Your task to perform on an android device: open app "Duolingo: language lessons" (install if not already installed) and go to login screen Image 0: 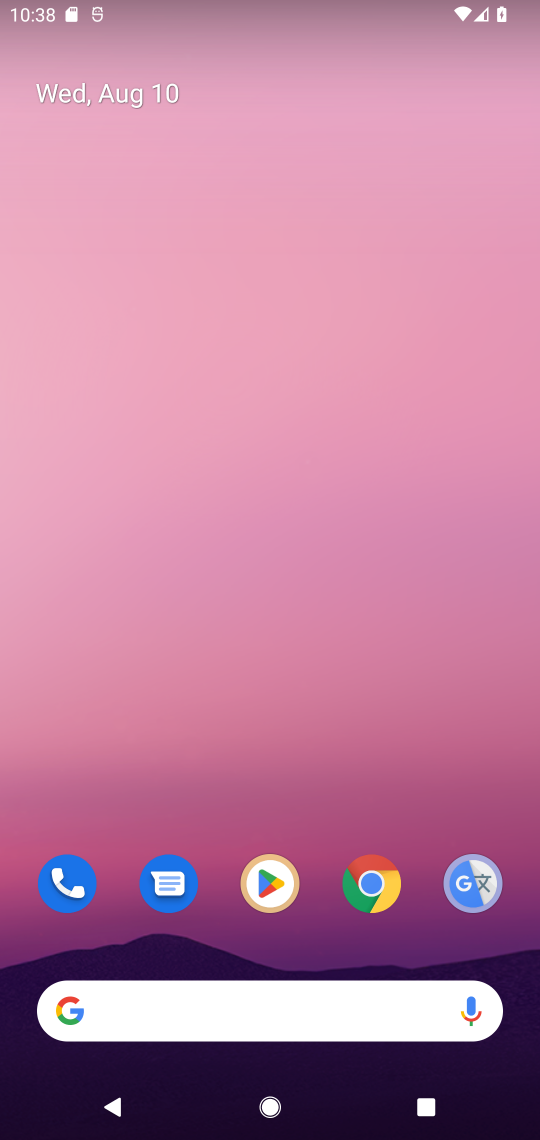
Step 0: drag from (309, 967) to (289, 163)
Your task to perform on an android device: open app "Duolingo: language lessons" (install if not already installed) and go to login screen Image 1: 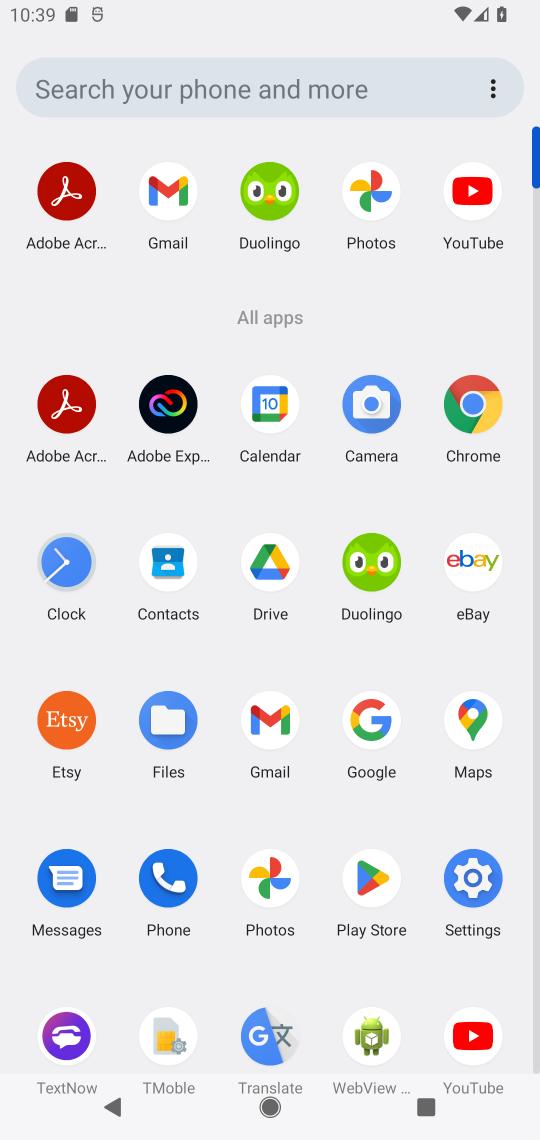
Step 1: click (373, 885)
Your task to perform on an android device: open app "Duolingo: language lessons" (install if not already installed) and go to login screen Image 2: 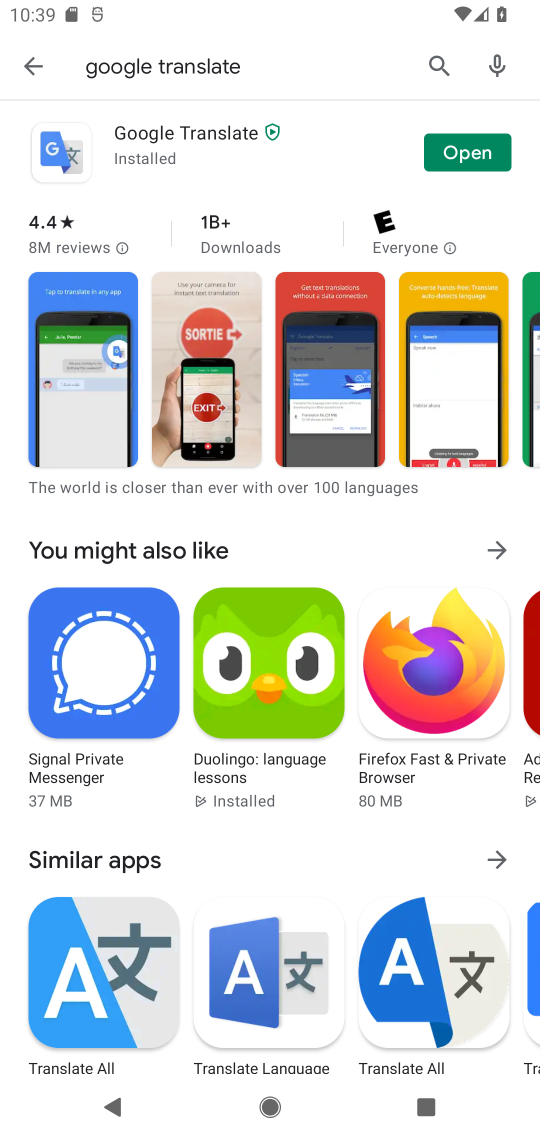
Step 2: click (434, 61)
Your task to perform on an android device: open app "Duolingo: language lessons" (install if not already installed) and go to login screen Image 3: 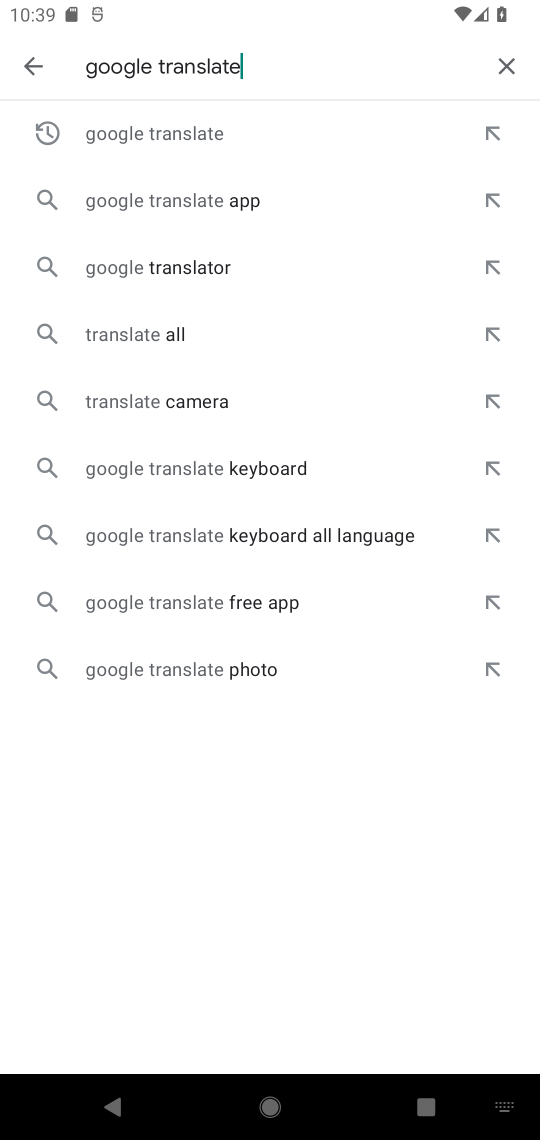
Step 3: click (505, 58)
Your task to perform on an android device: open app "Duolingo: language lessons" (install if not already installed) and go to login screen Image 4: 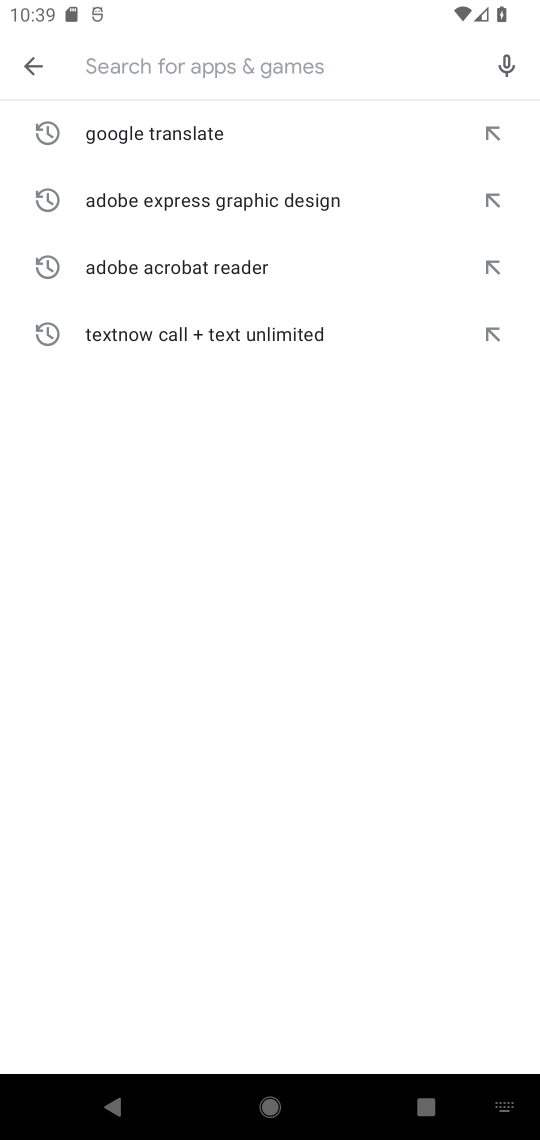
Step 4: type "Duolingo: language lessons"
Your task to perform on an android device: open app "Duolingo: language lessons" (install if not already installed) and go to login screen Image 5: 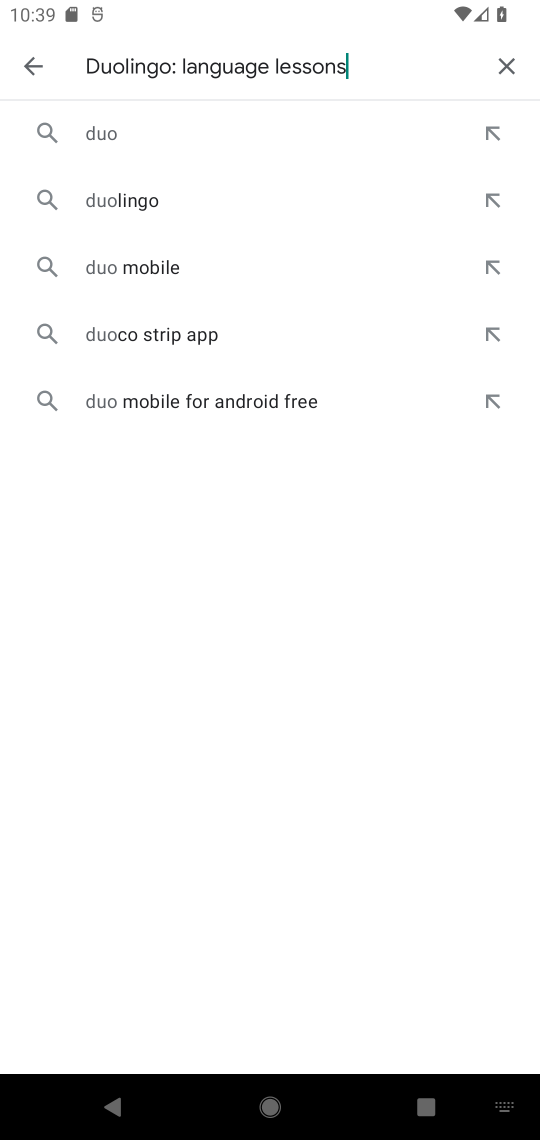
Step 5: type ""
Your task to perform on an android device: open app "Duolingo: language lessons" (install if not already installed) and go to login screen Image 6: 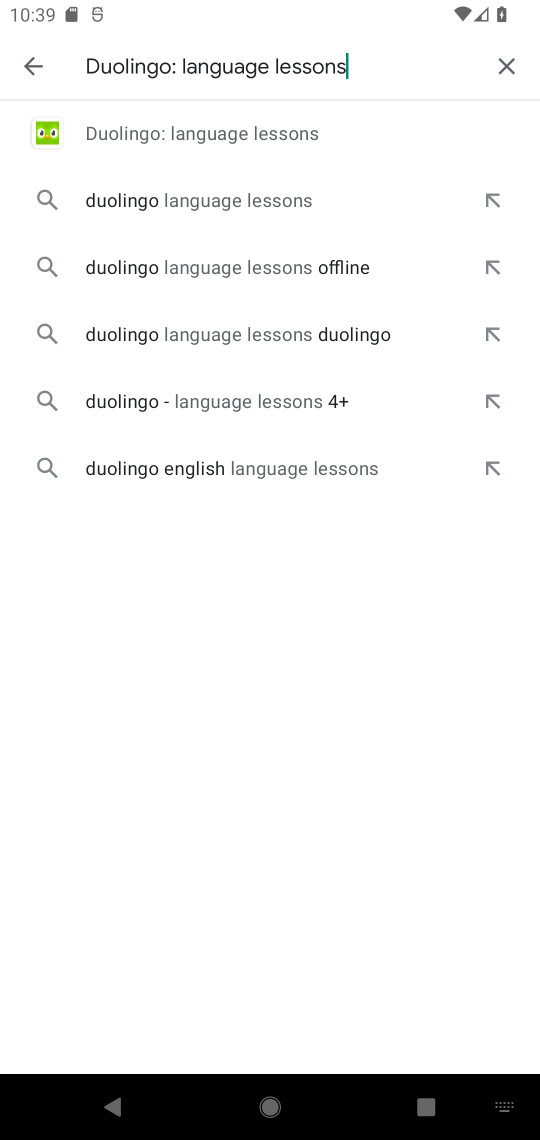
Step 6: click (256, 134)
Your task to perform on an android device: open app "Duolingo: language lessons" (install if not already installed) and go to login screen Image 7: 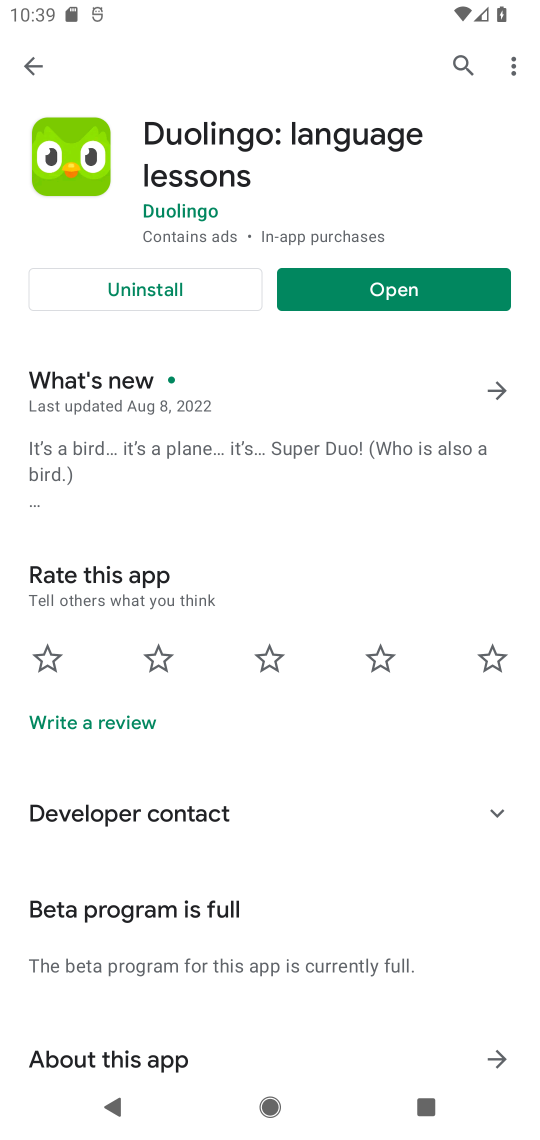
Step 7: click (388, 280)
Your task to perform on an android device: open app "Duolingo: language lessons" (install if not already installed) and go to login screen Image 8: 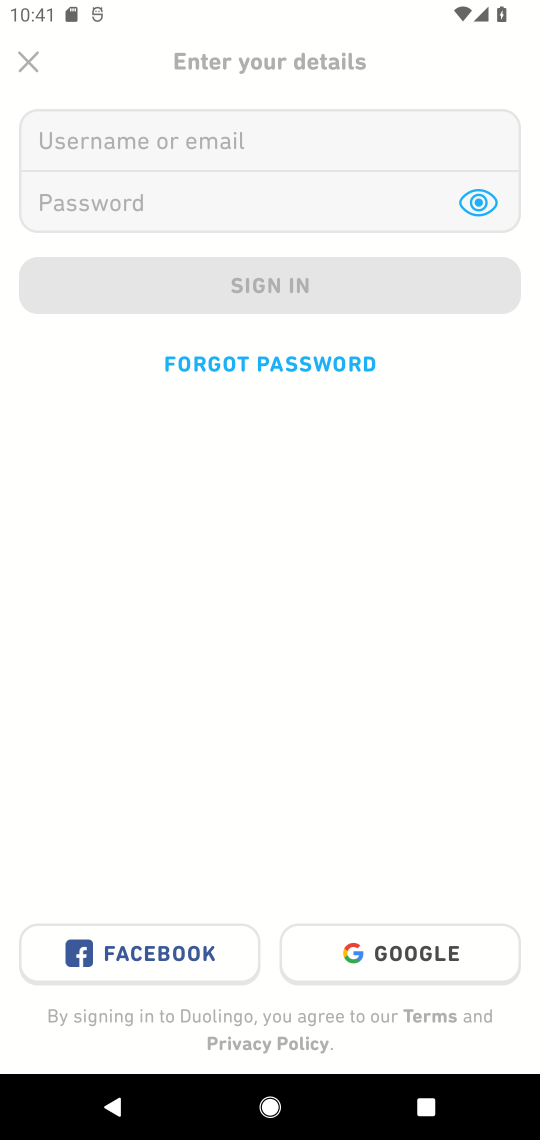
Step 8: task complete